Your task to perform on an android device: Is it going to rain this weekend? Image 0: 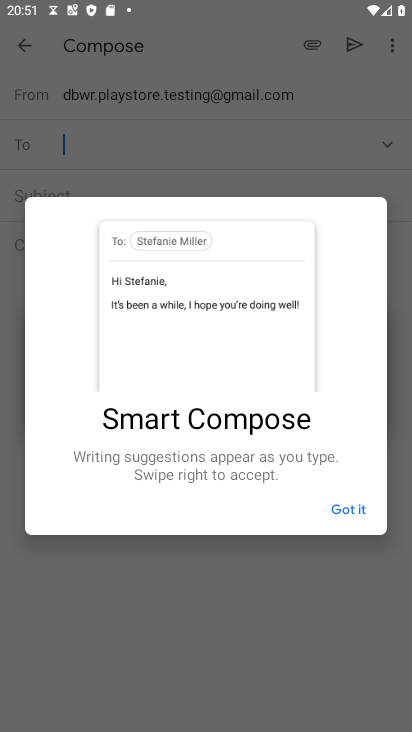
Step 0: press home button
Your task to perform on an android device: Is it going to rain this weekend? Image 1: 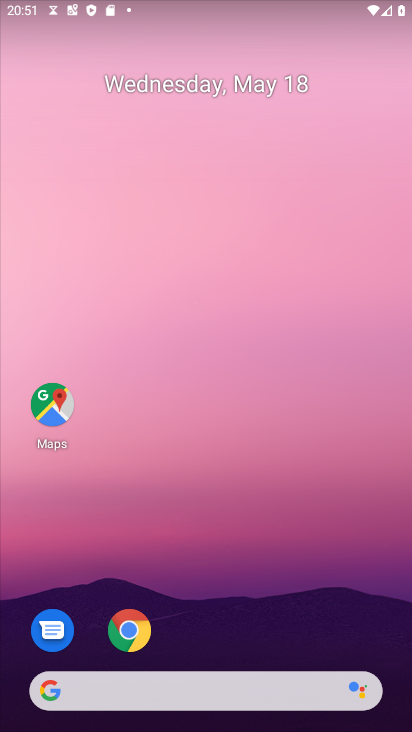
Step 1: click (50, 691)
Your task to perform on an android device: Is it going to rain this weekend? Image 2: 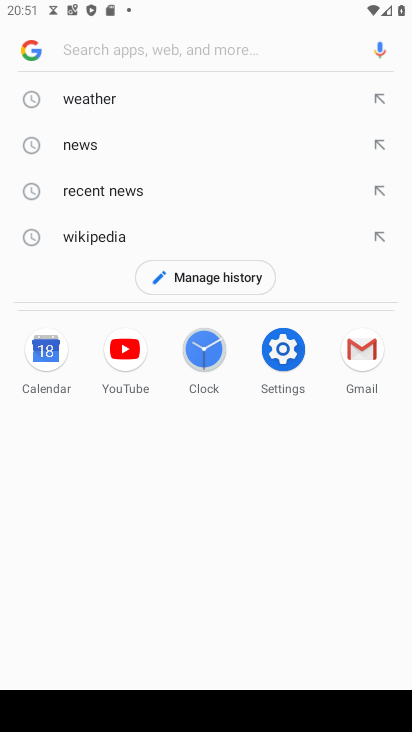
Step 2: click (112, 97)
Your task to perform on an android device: Is it going to rain this weekend? Image 3: 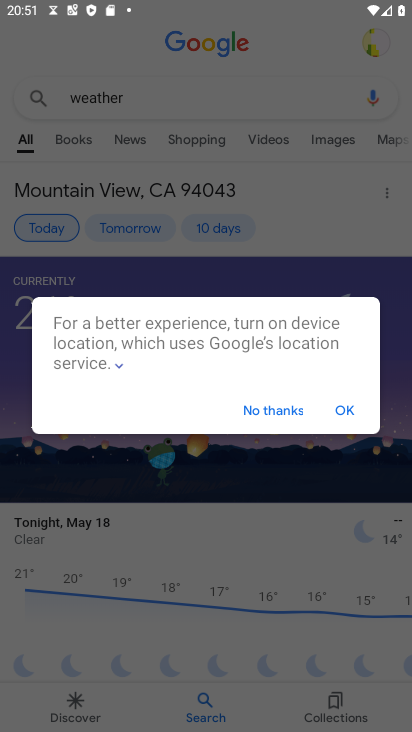
Step 3: click (346, 409)
Your task to perform on an android device: Is it going to rain this weekend? Image 4: 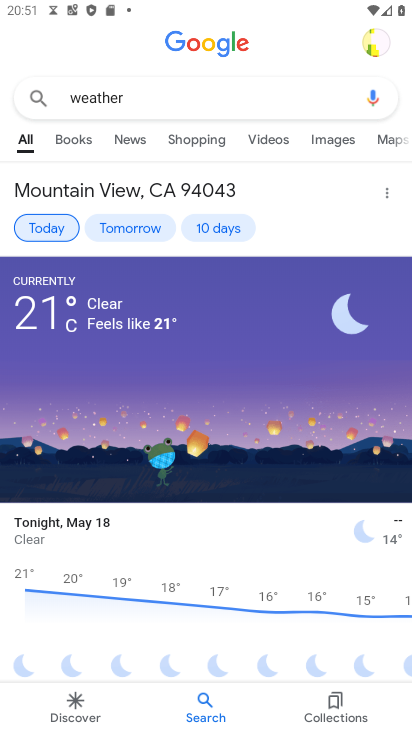
Step 4: click (214, 225)
Your task to perform on an android device: Is it going to rain this weekend? Image 5: 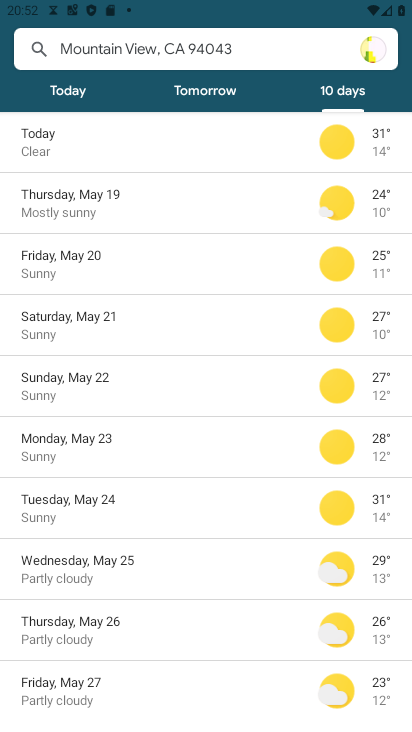
Step 5: click (210, 324)
Your task to perform on an android device: Is it going to rain this weekend? Image 6: 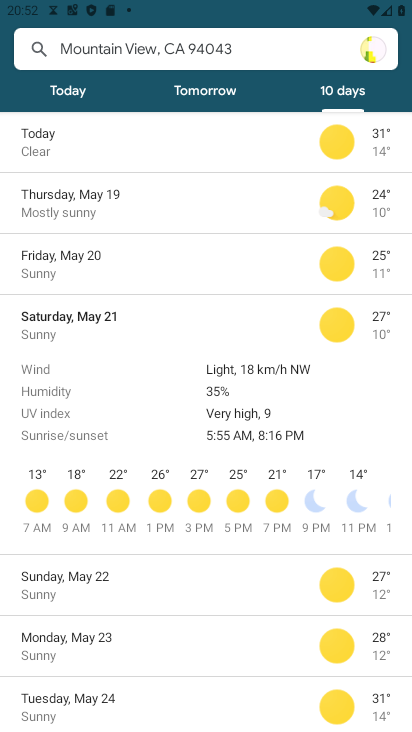
Step 6: task complete